Your task to perform on an android device: Open ESPN.com Image 0: 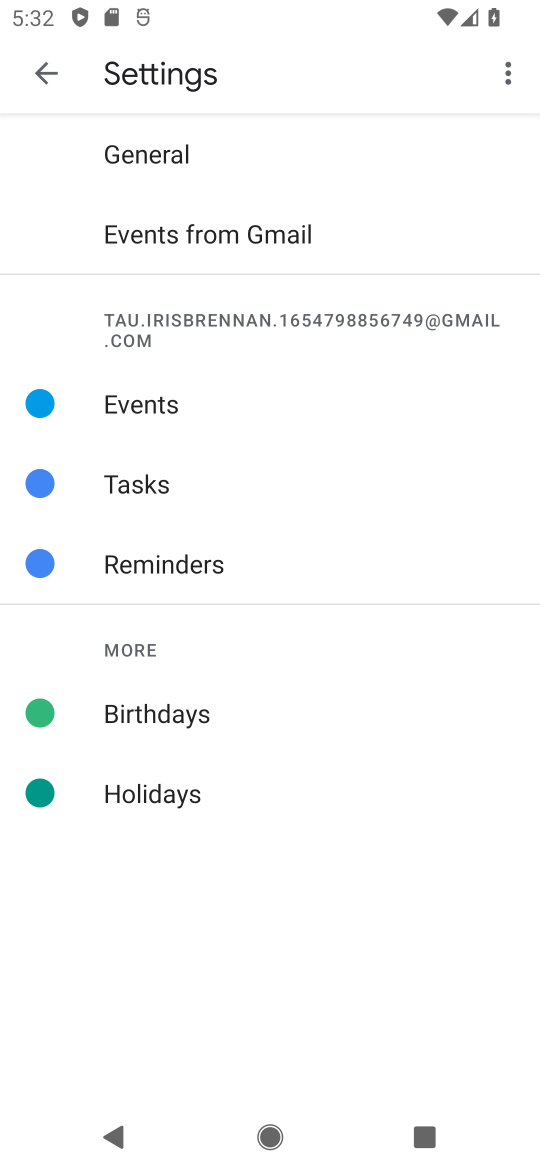
Step 0: press home button
Your task to perform on an android device: Open ESPN.com Image 1: 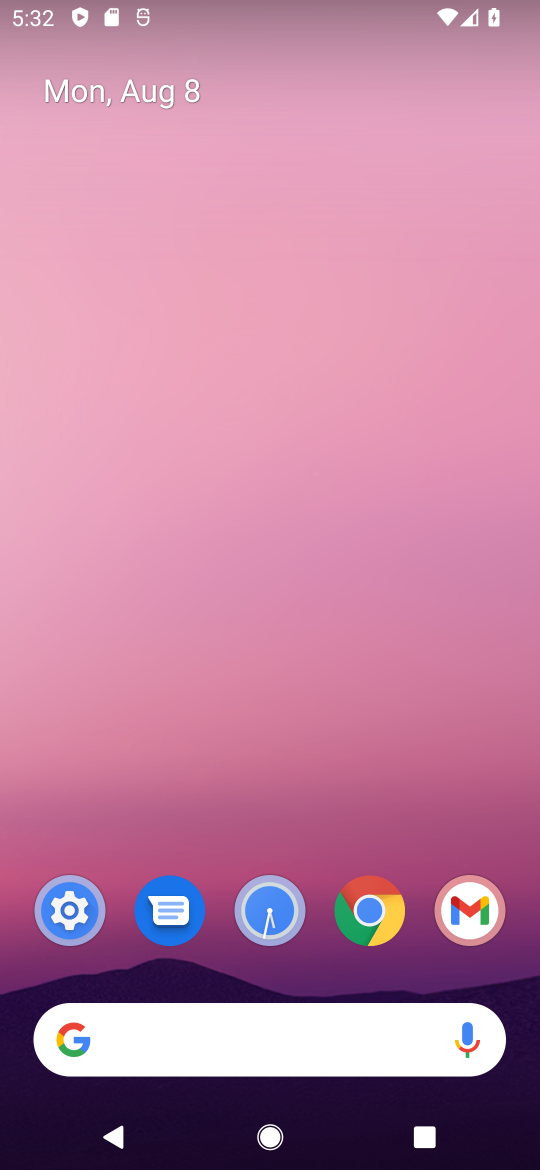
Step 1: click (364, 910)
Your task to perform on an android device: Open ESPN.com Image 2: 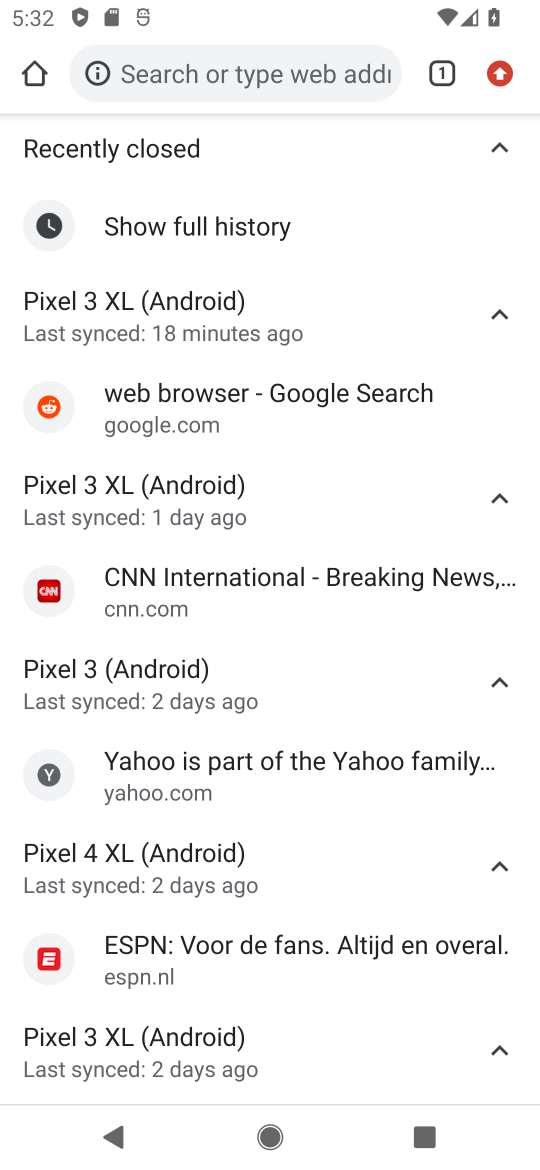
Step 2: click (292, 86)
Your task to perform on an android device: Open ESPN.com Image 3: 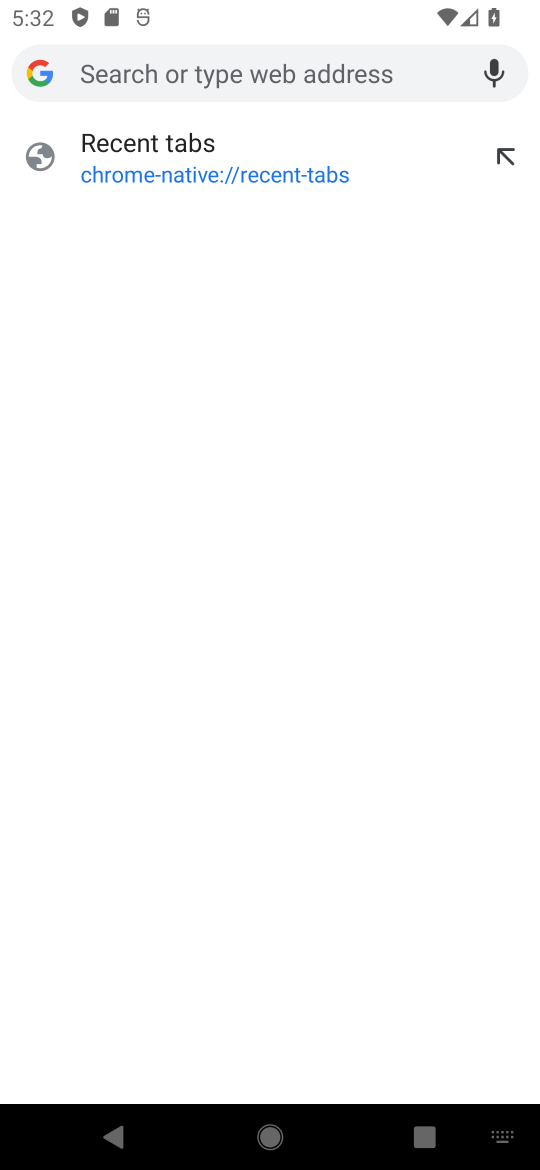
Step 3: type "ESPN.com"
Your task to perform on an android device: Open ESPN.com Image 4: 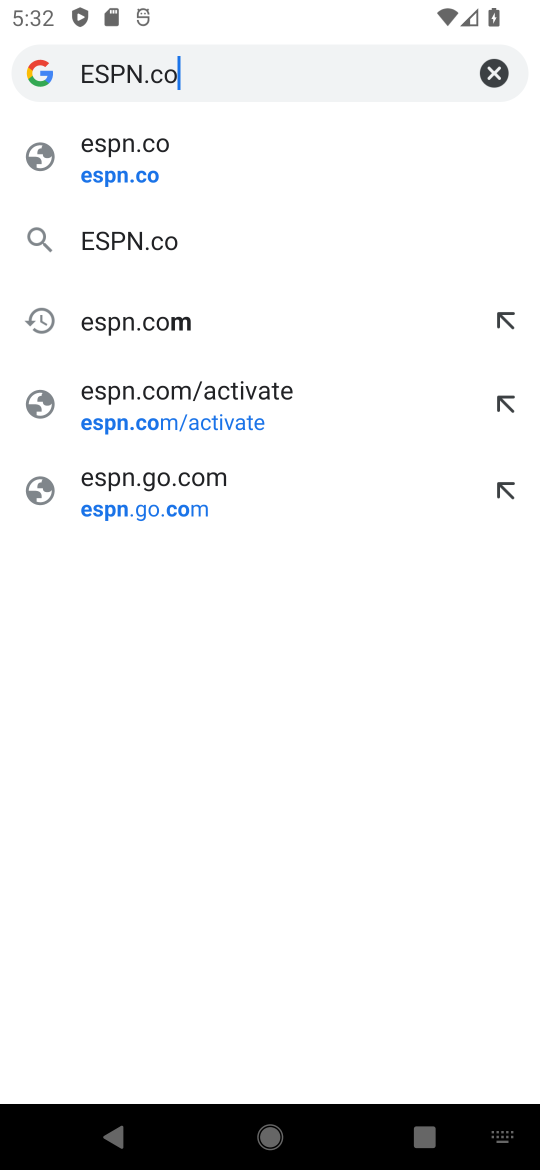
Step 4: type ""
Your task to perform on an android device: Open ESPN.com Image 5: 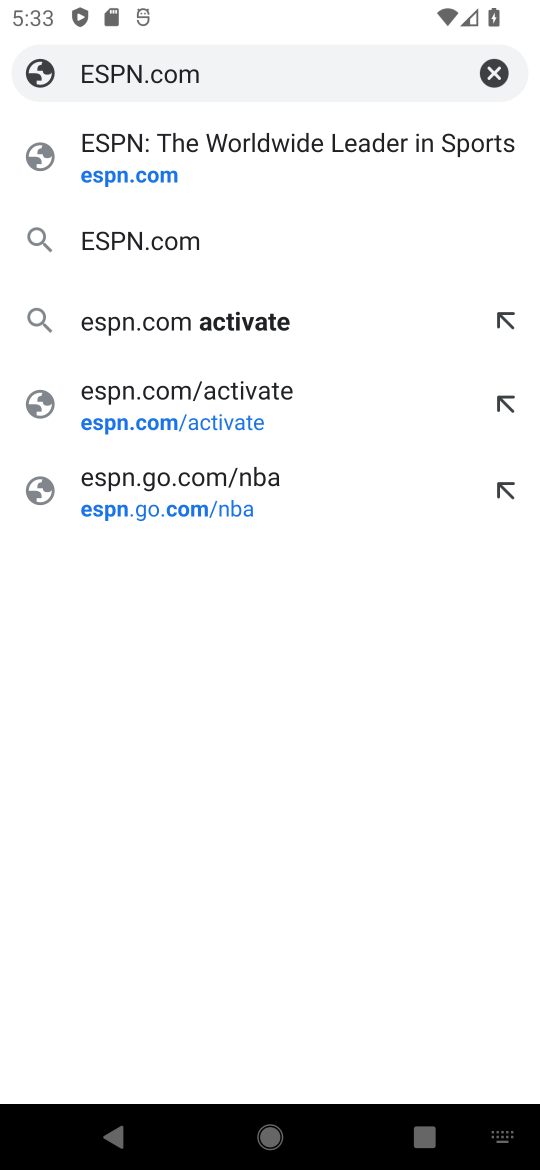
Step 5: click (122, 249)
Your task to perform on an android device: Open ESPN.com Image 6: 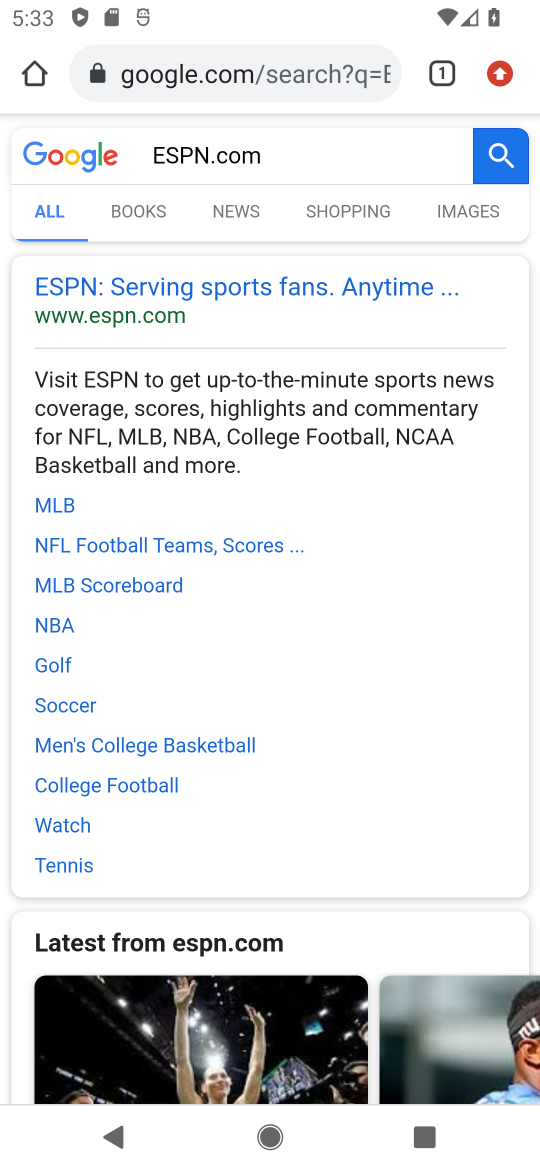
Step 6: click (174, 304)
Your task to perform on an android device: Open ESPN.com Image 7: 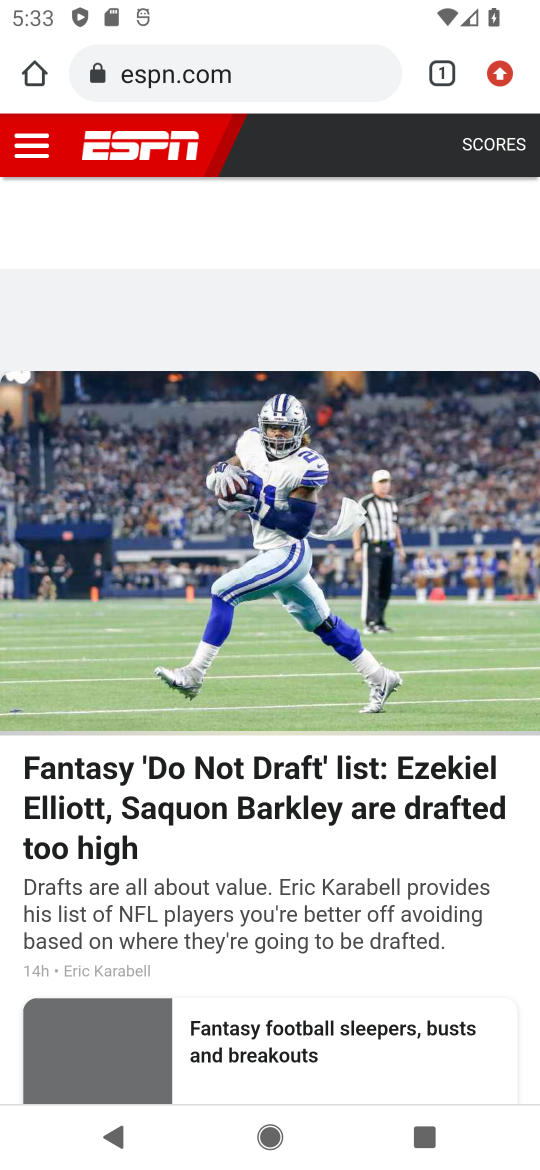
Step 7: task complete